Your task to perform on an android device: Open location settings Image 0: 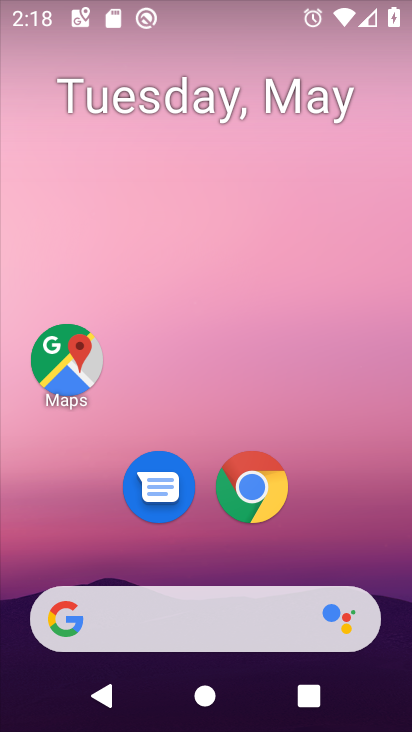
Step 0: click (375, 573)
Your task to perform on an android device: Open location settings Image 1: 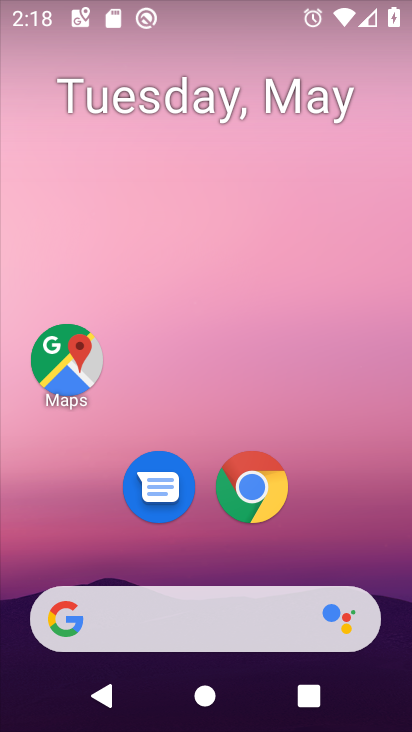
Step 1: drag from (48, 602) to (285, 151)
Your task to perform on an android device: Open location settings Image 2: 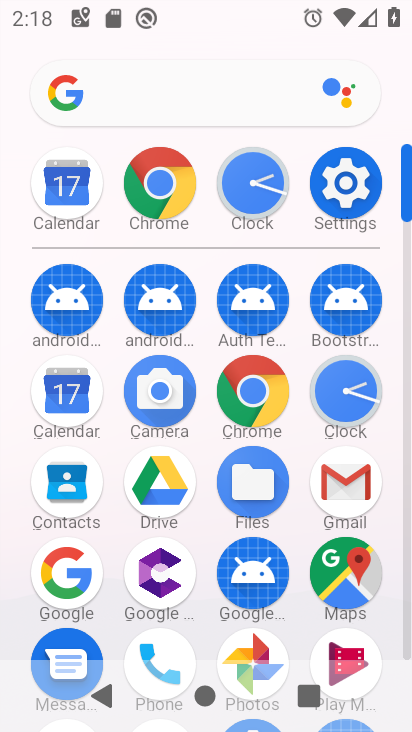
Step 2: click (356, 180)
Your task to perform on an android device: Open location settings Image 3: 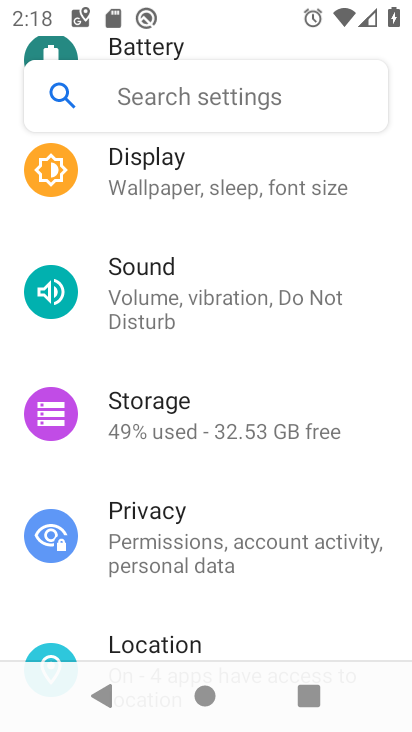
Step 3: click (117, 635)
Your task to perform on an android device: Open location settings Image 4: 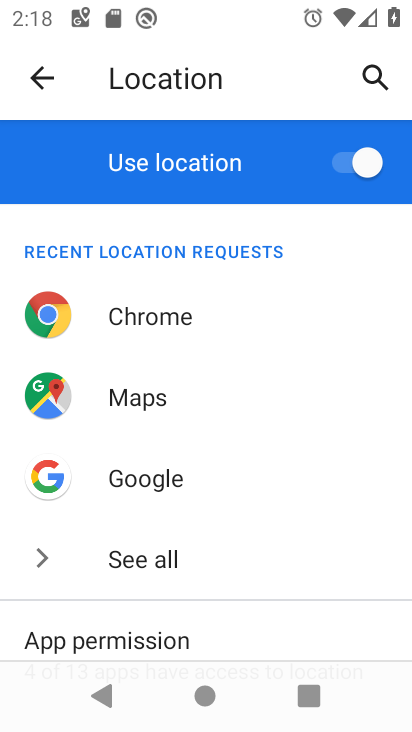
Step 4: drag from (118, 530) to (196, 262)
Your task to perform on an android device: Open location settings Image 5: 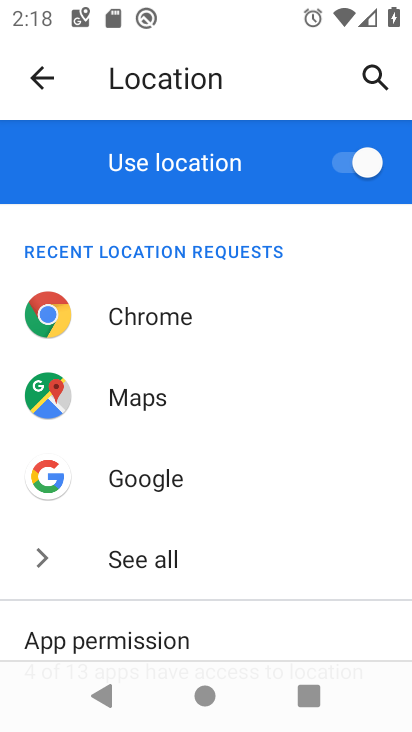
Step 5: drag from (98, 656) to (262, 198)
Your task to perform on an android device: Open location settings Image 6: 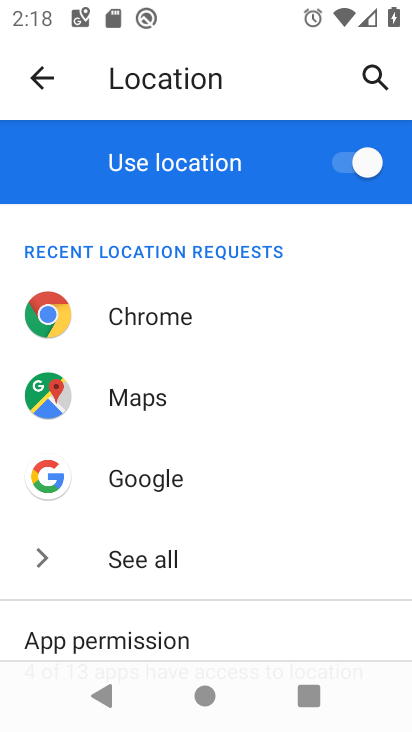
Step 6: drag from (0, 500) to (192, 172)
Your task to perform on an android device: Open location settings Image 7: 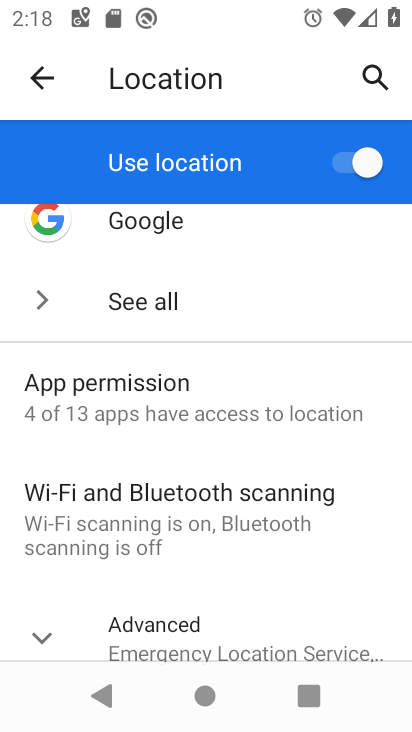
Step 7: drag from (147, 634) to (282, 244)
Your task to perform on an android device: Open location settings Image 8: 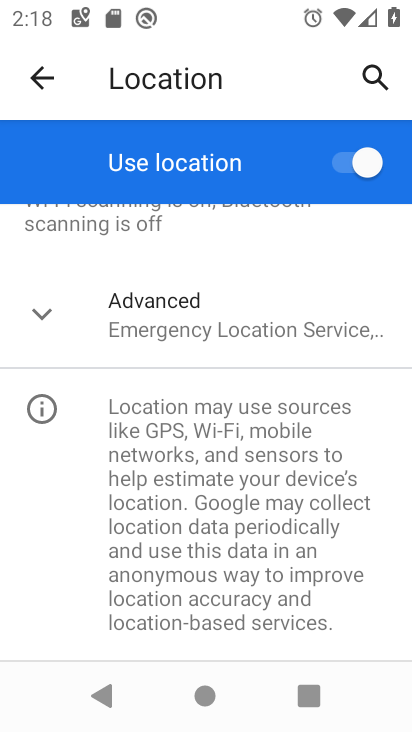
Step 8: click (198, 313)
Your task to perform on an android device: Open location settings Image 9: 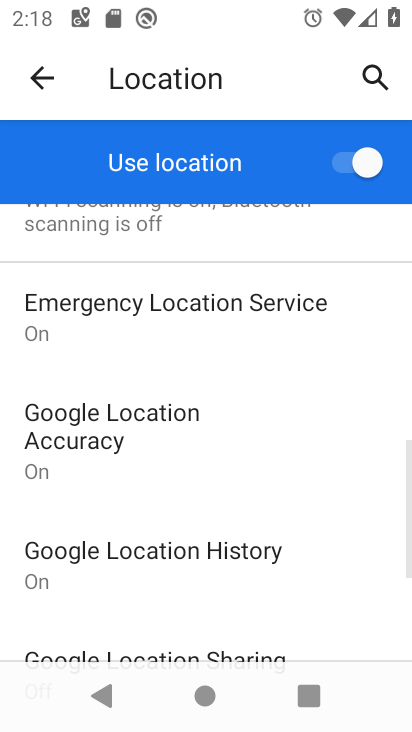
Step 9: task complete